Your task to perform on an android device: Toggle the flashlight Image 0: 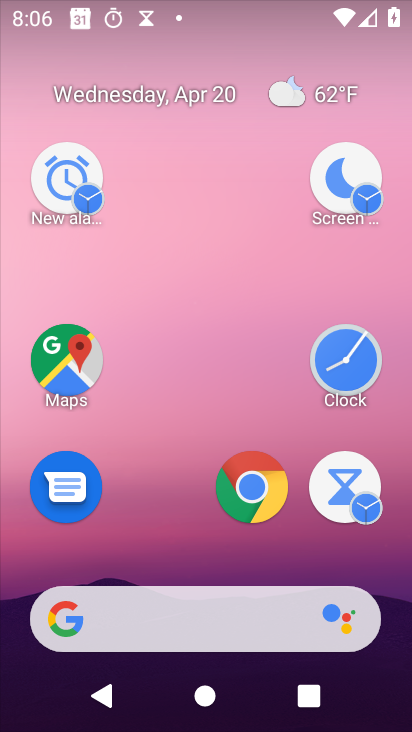
Step 0: drag from (260, 702) to (143, 2)
Your task to perform on an android device: Toggle the flashlight Image 1: 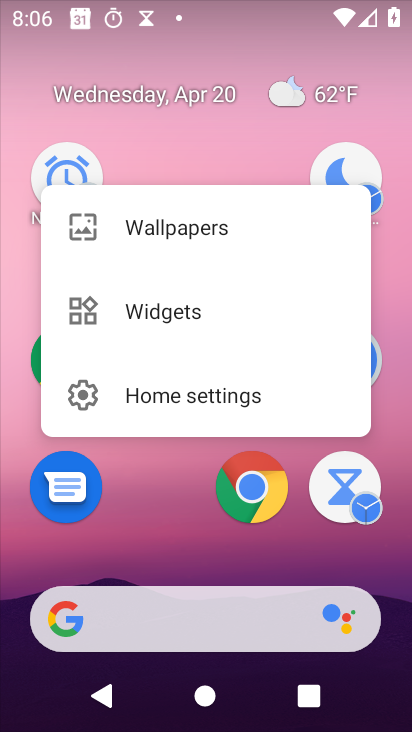
Step 1: drag from (223, 469) to (157, 78)
Your task to perform on an android device: Toggle the flashlight Image 2: 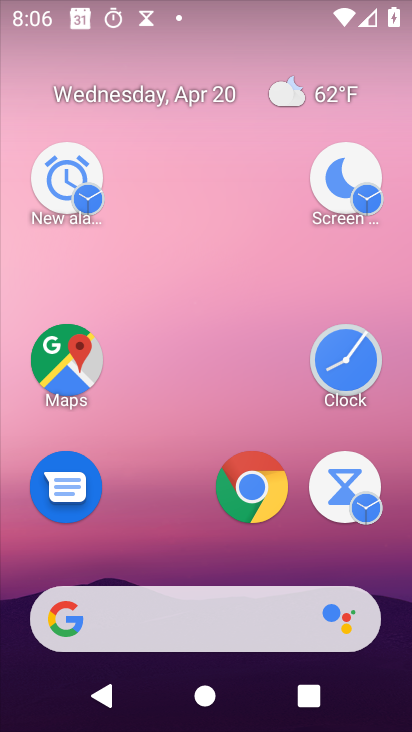
Step 2: click (167, 145)
Your task to perform on an android device: Toggle the flashlight Image 3: 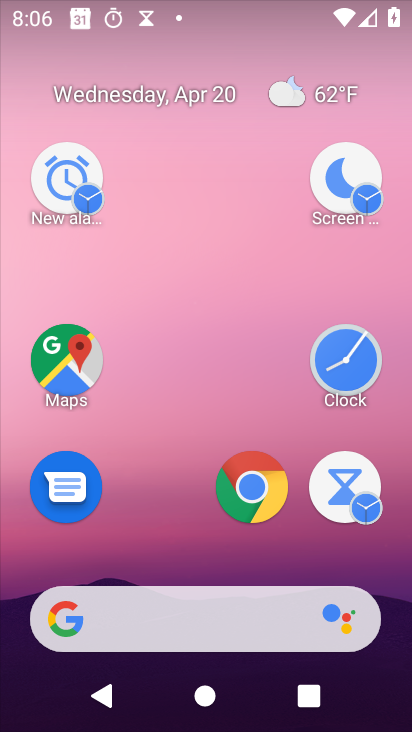
Step 3: task complete